Your task to perform on an android device: What's the weather going to be this weekend? Image 0: 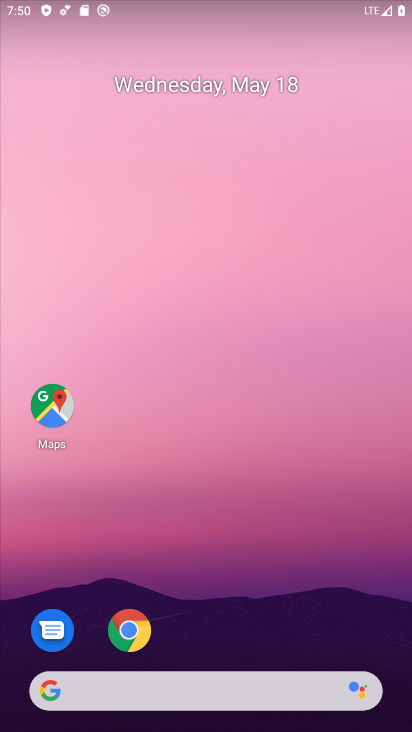
Step 0: click (170, 679)
Your task to perform on an android device: What's the weather going to be this weekend? Image 1: 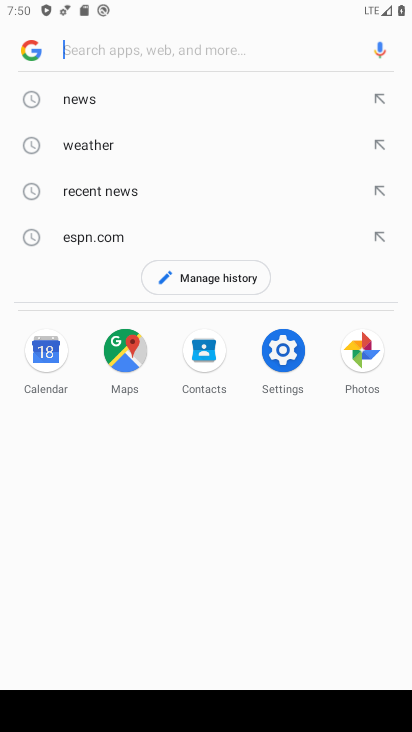
Step 1: click (74, 142)
Your task to perform on an android device: What's the weather going to be this weekend? Image 2: 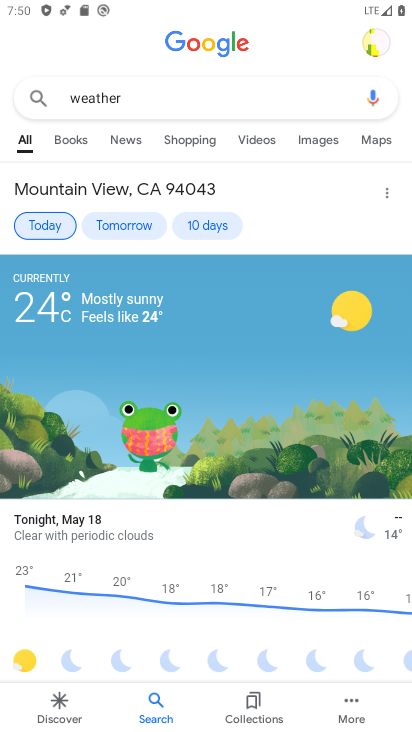
Step 2: click (194, 221)
Your task to perform on an android device: What's the weather going to be this weekend? Image 3: 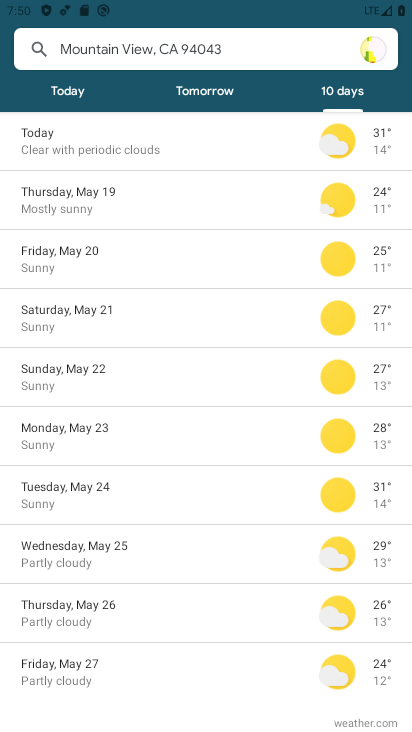
Step 3: task complete